Your task to perform on an android device: toggle data saver in the chrome app Image 0: 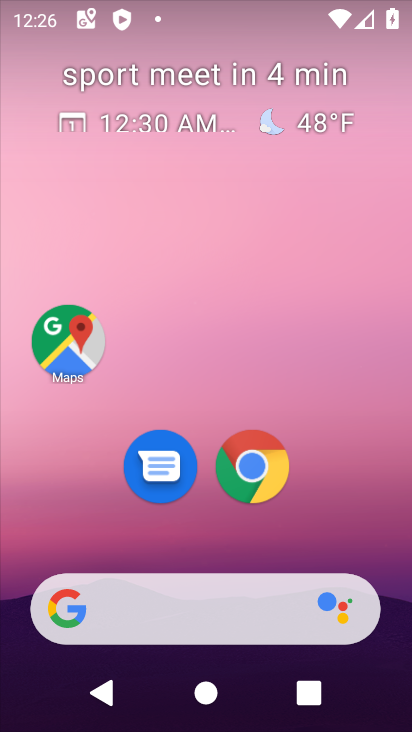
Step 0: click (248, 463)
Your task to perform on an android device: toggle data saver in the chrome app Image 1: 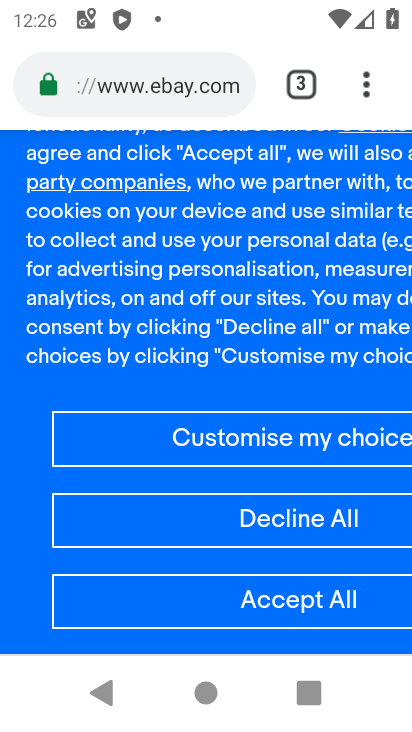
Step 1: click (362, 85)
Your task to perform on an android device: toggle data saver in the chrome app Image 2: 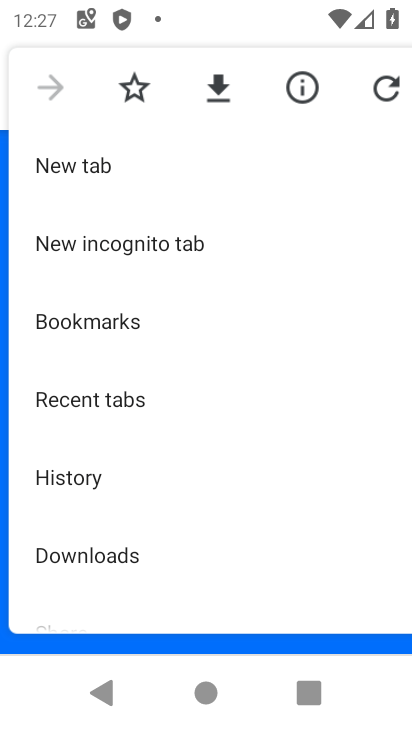
Step 2: drag from (181, 511) to (185, 129)
Your task to perform on an android device: toggle data saver in the chrome app Image 3: 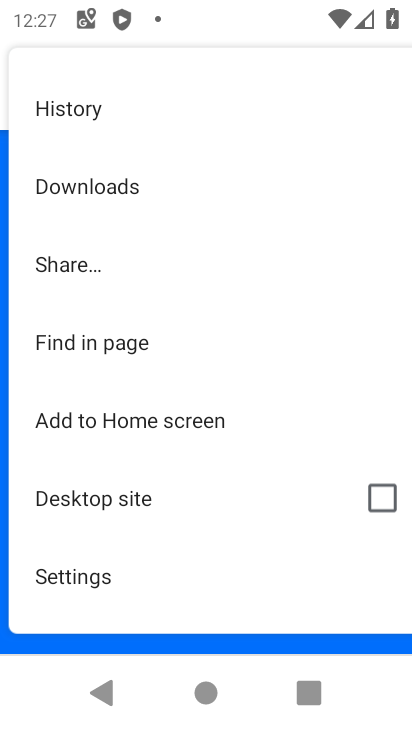
Step 3: click (87, 574)
Your task to perform on an android device: toggle data saver in the chrome app Image 4: 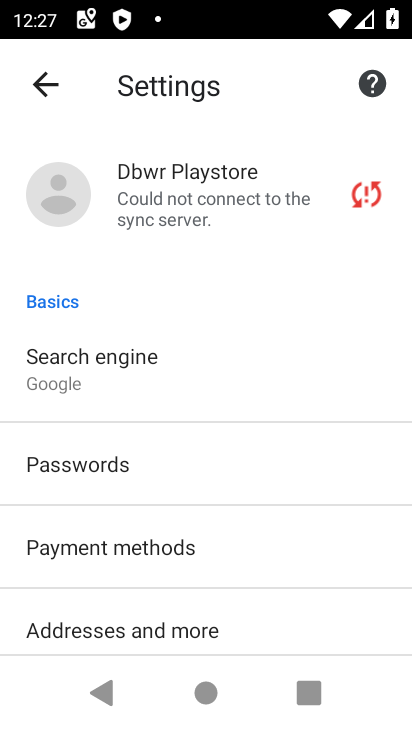
Step 4: drag from (225, 601) to (217, 201)
Your task to perform on an android device: toggle data saver in the chrome app Image 5: 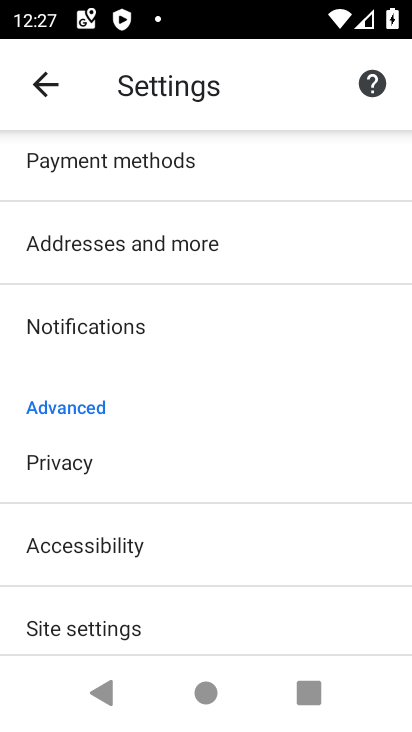
Step 5: drag from (197, 597) to (170, 248)
Your task to perform on an android device: toggle data saver in the chrome app Image 6: 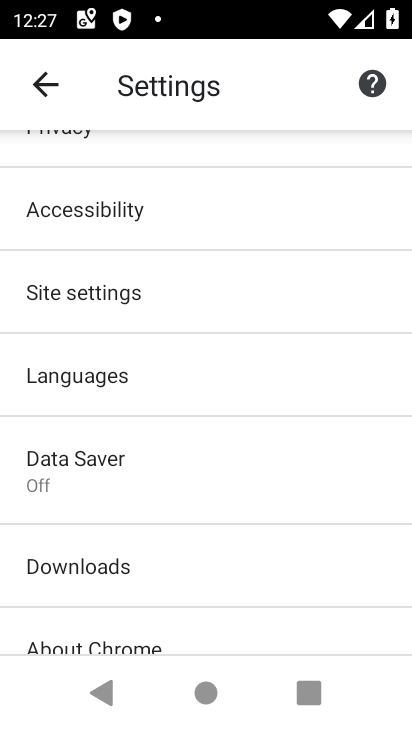
Step 6: click (81, 465)
Your task to perform on an android device: toggle data saver in the chrome app Image 7: 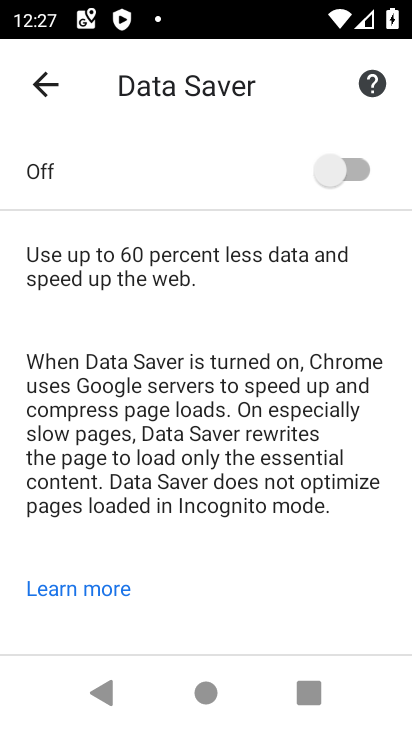
Step 7: click (358, 172)
Your task to perform on an android device: toggle data saver in the chrome app Image 8: 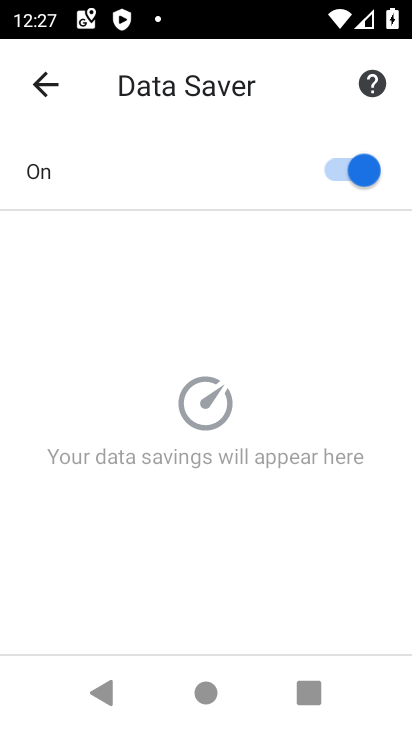
Step 8: task complete